Your task to perform on an android device: turn on priority inbox in the gmail app Image 0: 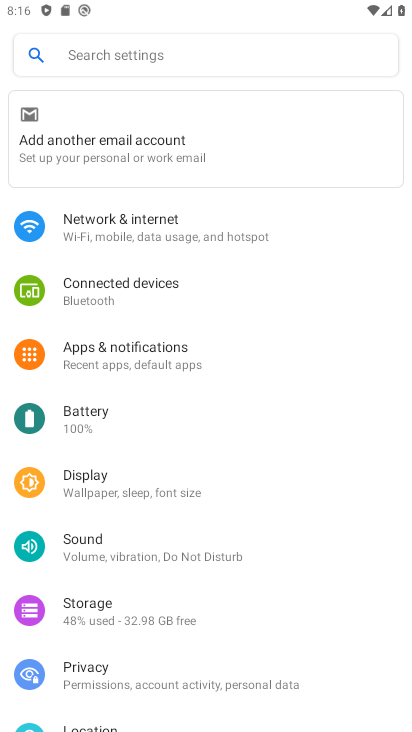
Step 0: press home button
Your task to perform on an android device: turn on priority inbox in the gmail app Image 1: 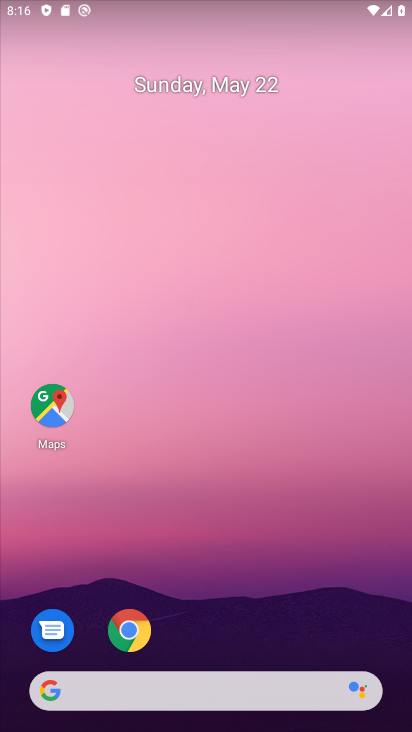
Step 1: drag from (140, 688) to (343, 178)
Your task to perform on an android device: turn on priority inbox in the gmail app Image 2: 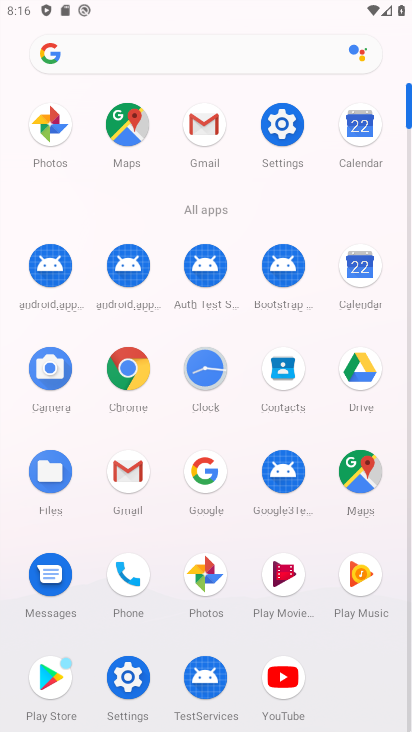
Step 2: click (203, 129)
Your task to perform on an android device: turn on priority inbox in the gmail app Image 3: 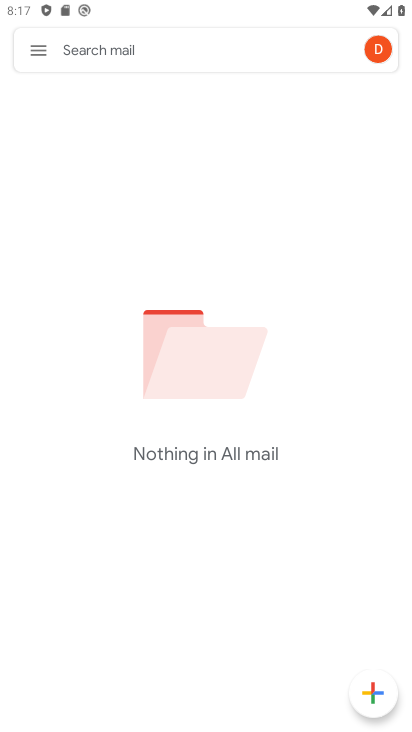
Step 3: click (42, 54)
Your task to perform on an android device: turn on priority inbox in the gmail app Image 4: 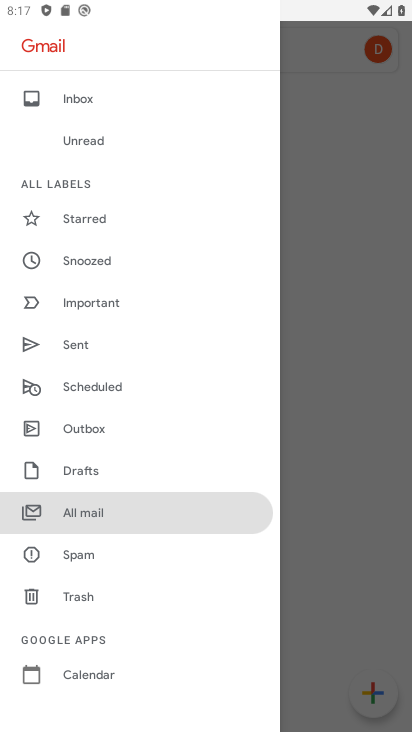
Step 4: drag from (101, 632) to (288, 235)
Your task to perform on an android device: turn on priority inbox in the gmail app Image 5: 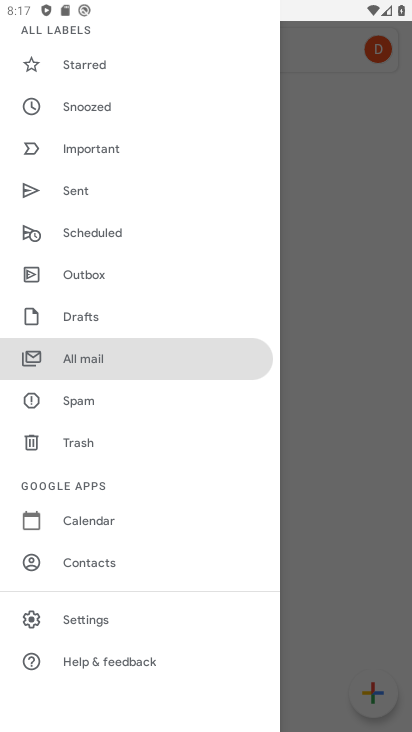
Step 5: click (92, 619)
Your task to perform on an android device: turn on priority inbox in the gmail app Image 6: 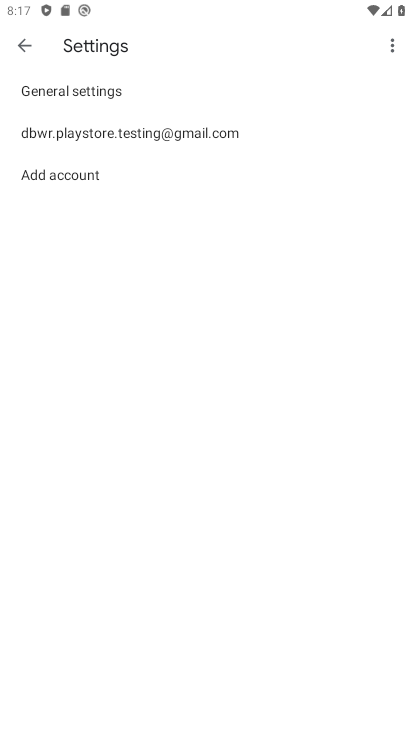
Step 6: click (174, 135)
Your task to perform on an android device: turn on priority inbox in the gmail app Image 7: 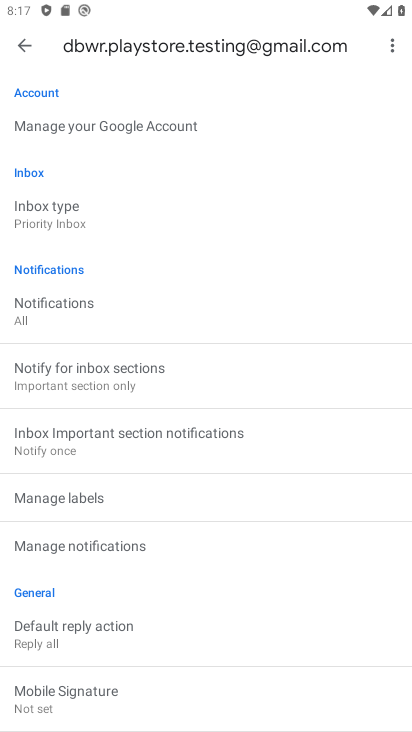
Step 7: click (73, 212)
Your task to perform on an android device: turn on priority inbox in the gmail app Image 8: 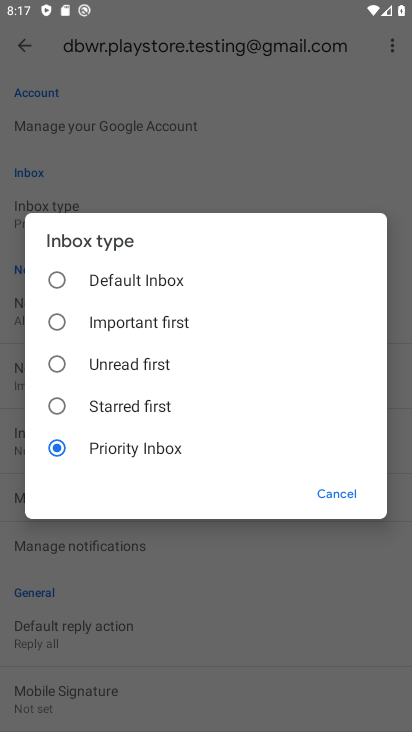
Step 8: task complete